Your task to perform on an android device: turn on data saver in the chrome app Image 0: 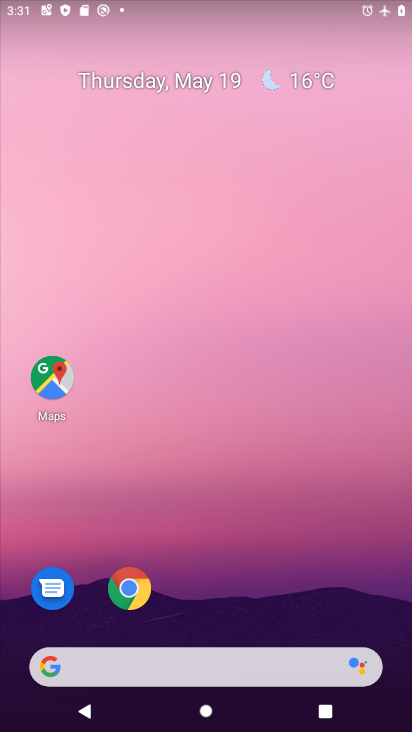
Step 0: click (125, 596)
Your task to perform on an android device: turn on data saver in the chrome app Image 1: 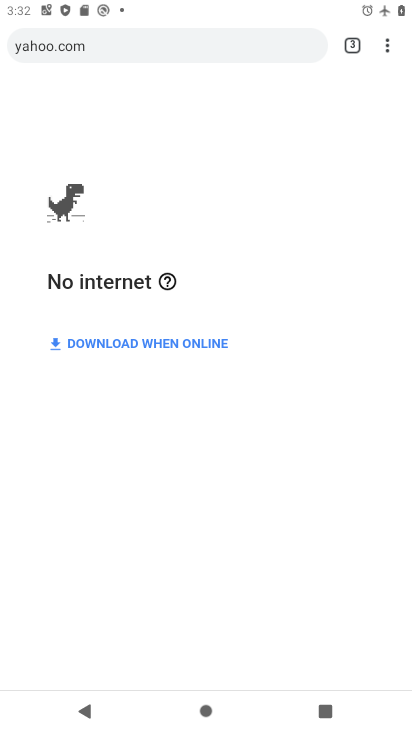
Step 1: drag from (389, 41) to (235, 506)
Your task to perform on an android device: turn on data saver in the chrome app Image 2: 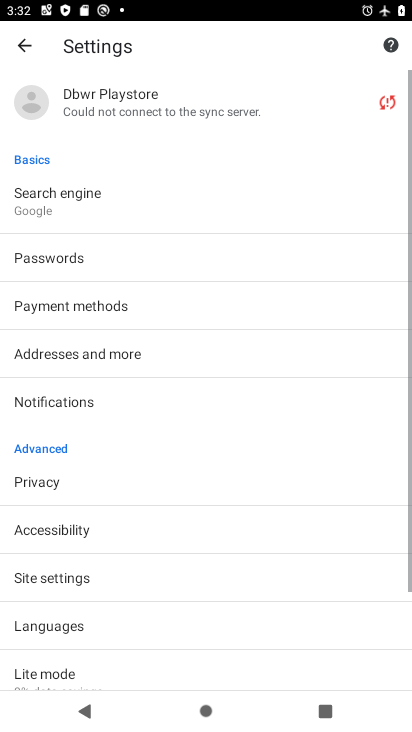
Step 2: drag from (169, 581) to (255, 45)
Your task to perform on an android device: turn on data saver in the chrome app Image 3: 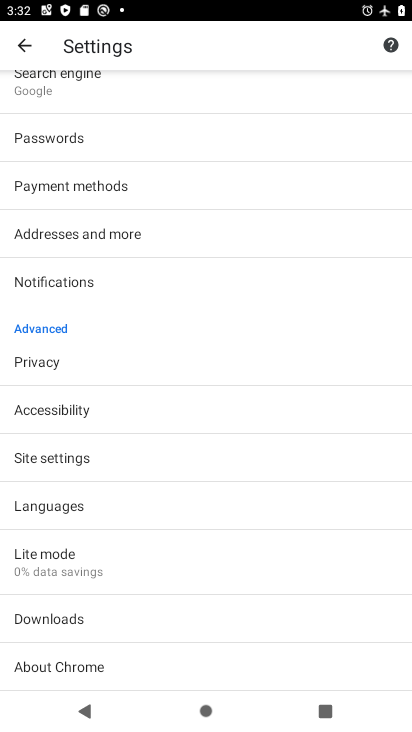
Step 3: click (102, 559)
Your task to perform on an android device: turn on data saver in the chrome app Image 4: 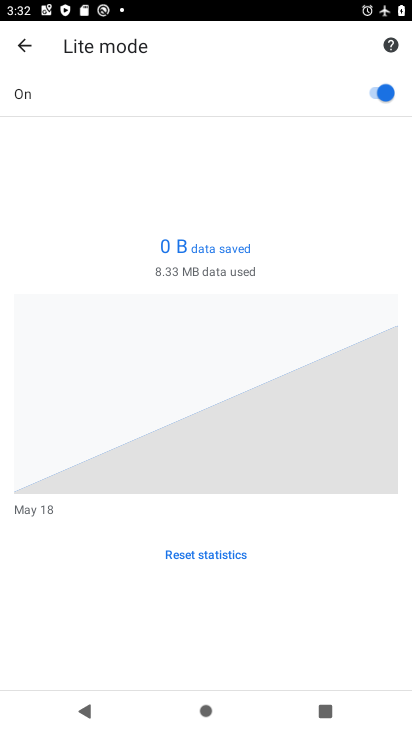
Step 4: task complete